Your task to perform on an android device: change your default location settings in chrome Image 0: 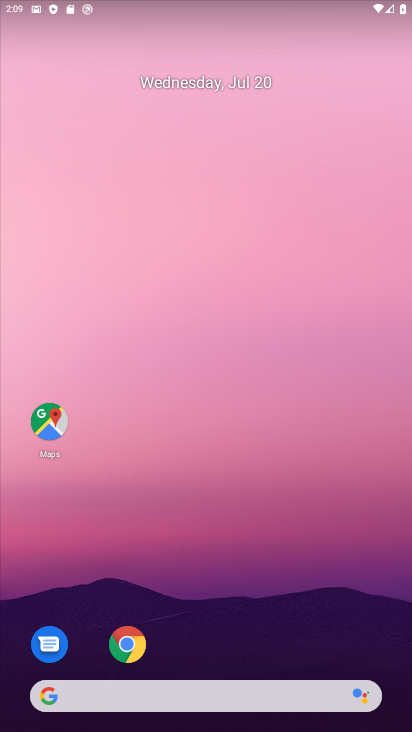
Step 0: press home button
Your task to perform on an android device: change your default location settings in chrome Image 1: 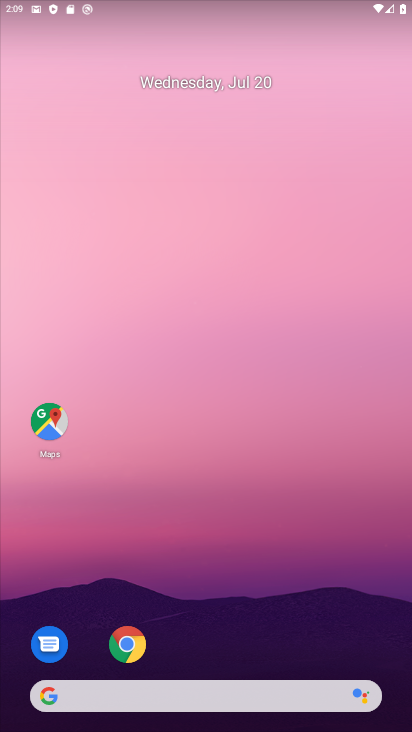
Step 1: drag from (235, 618) to (228, 55)
Your task to perform on an android device: change your default location settings in chrome Image 2: 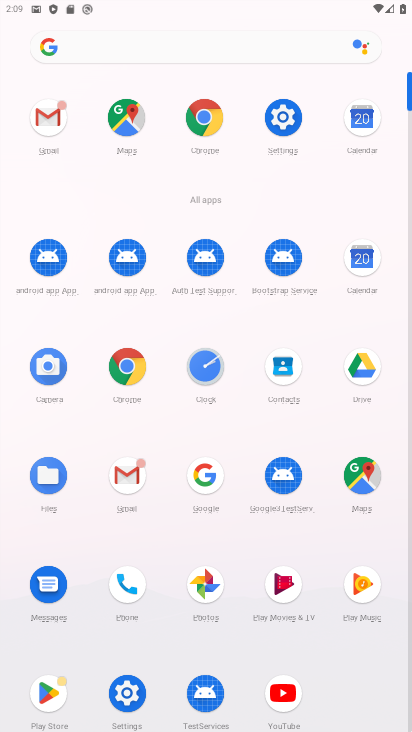
Step 2: click (121, 377)
Your task to perform on an android device: change your default location settings in chrome Image 3: 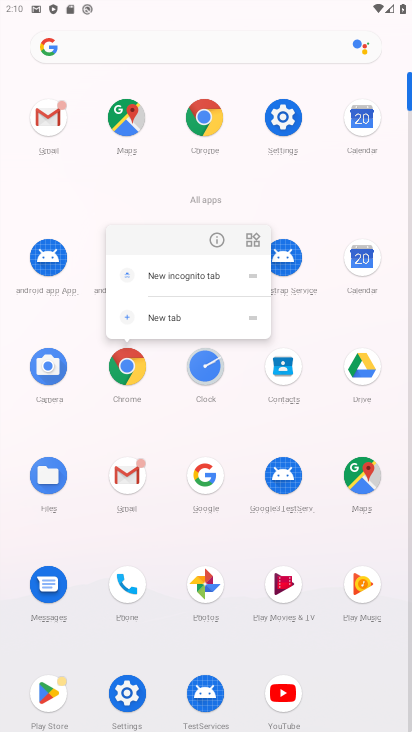
Step 3: click (228, 245)
Your task to perform on an android device: change your default location settings in chrome Image 4: 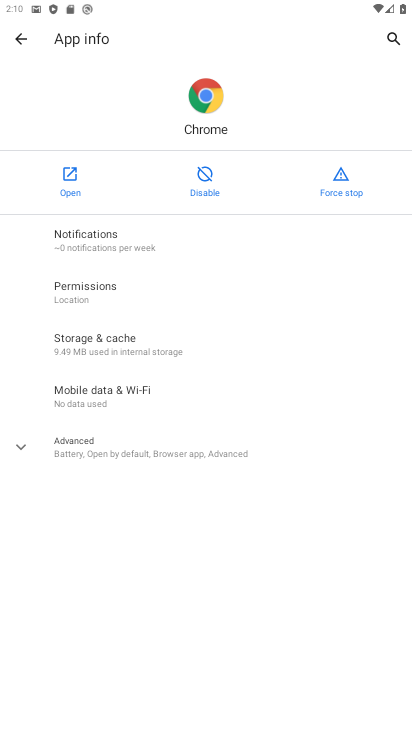
Step 4: click (86, 290)
Your task to perform on an android device: change your default location settings in chrome Image 5: 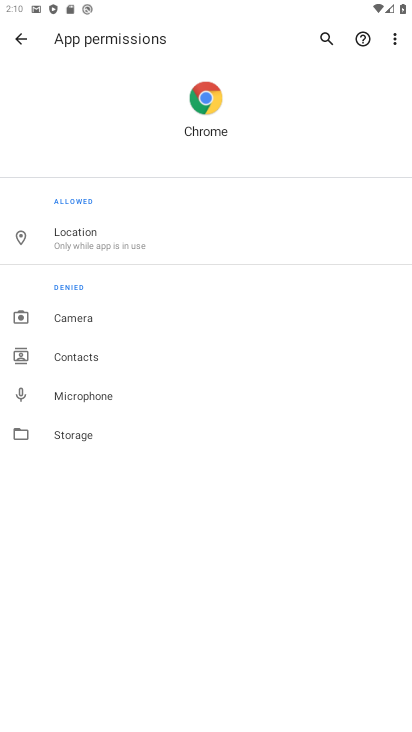
Step 5: click (85, 242)
Your task to perform on an android device: change your default location settings in chrome Image 6: 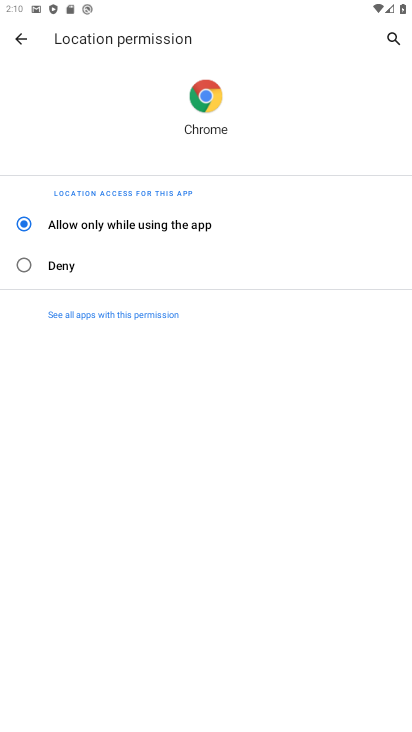
Step 6: click (75, 263)
Your task to perform on an android device: change your default location settings in chrome Image 7: 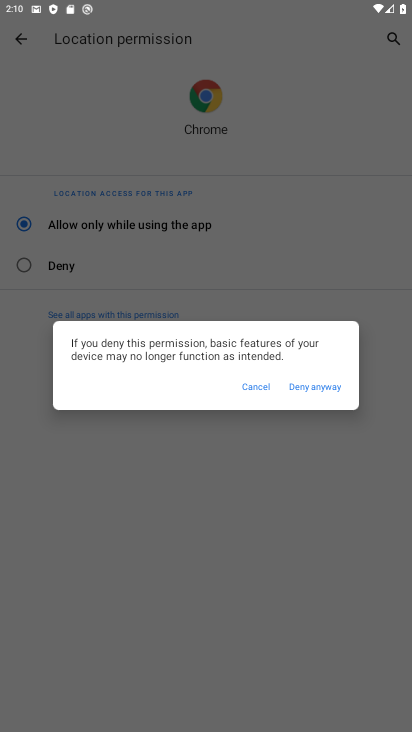
Step 7: click (330, 396)
Your task to perform on an android device: change your default location settings in chrome Image 8: 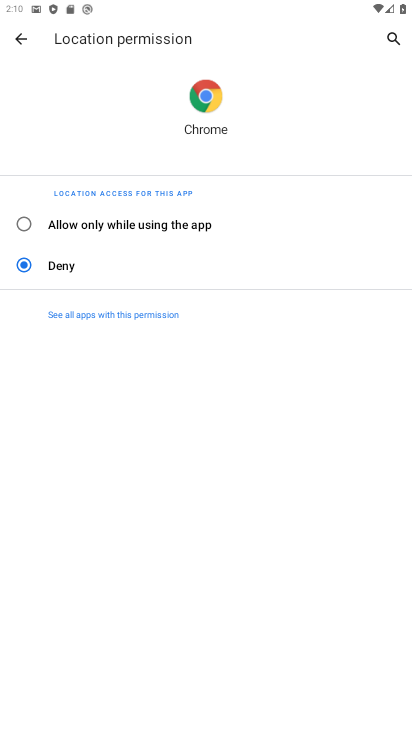
Step 8: task complete